Your task to perform on an android device: What's the weather today? Image 0: 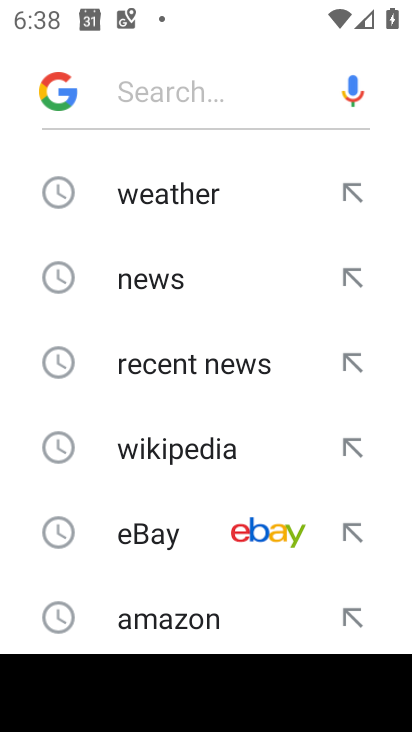
Step 0: click (168, 193)
Your task to perform on an android device: What's the weather today? Image 1: 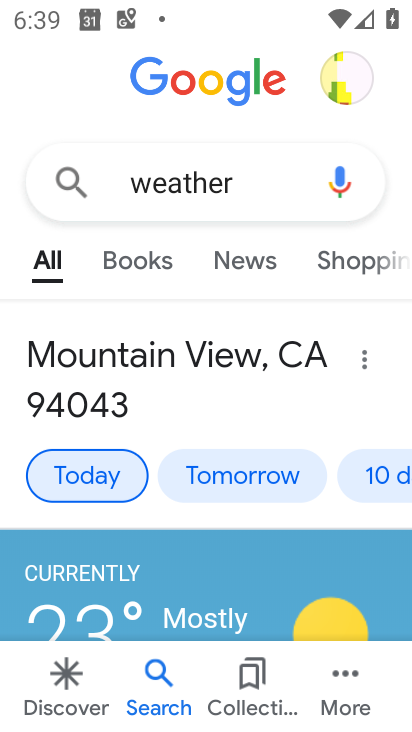
Step 1: task complete